Your task to perform on an android device: Open the calendar and show me this week's events? Image 0: 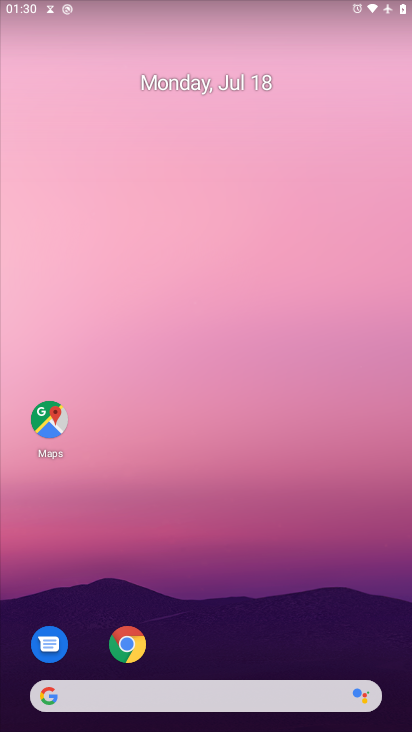
Step 0: press home button
Your task to perform on an android device: Open the calendar and show me this week's events? Image 1: 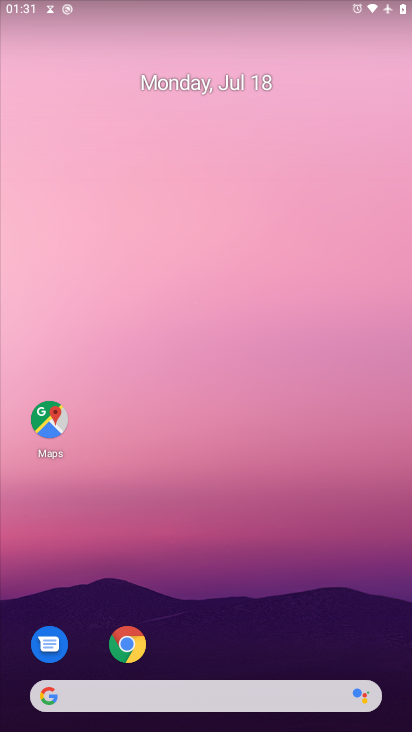
Step 1: drag from (211, 657) to (270, 7)
Your task to perform on an android device: Open the calendar and show me this week's events? Image 2: 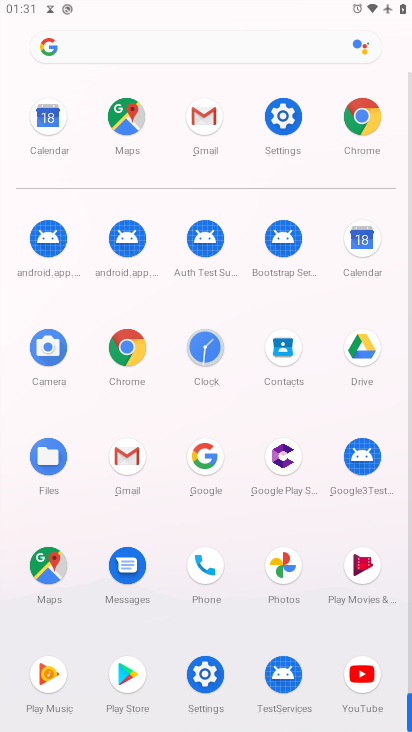
Step 2: click (367, 245)
Your task to perform on an android device: Open the calendar and show me this week's events? Image 3: 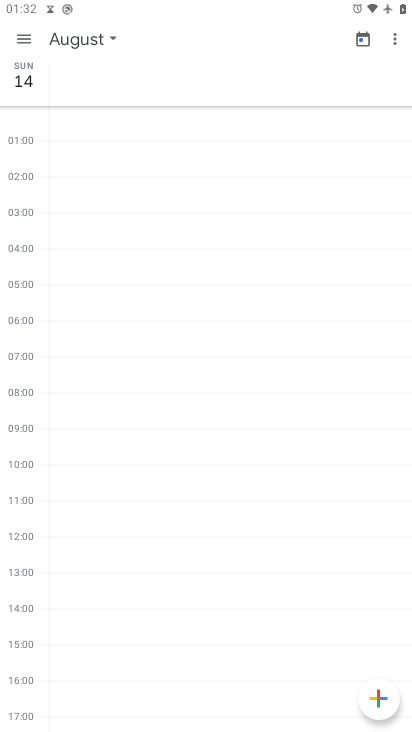
Step 3: click (20, 38)
Your task to perform on an android device: Open the calendar and show me this week's events? Image 4: 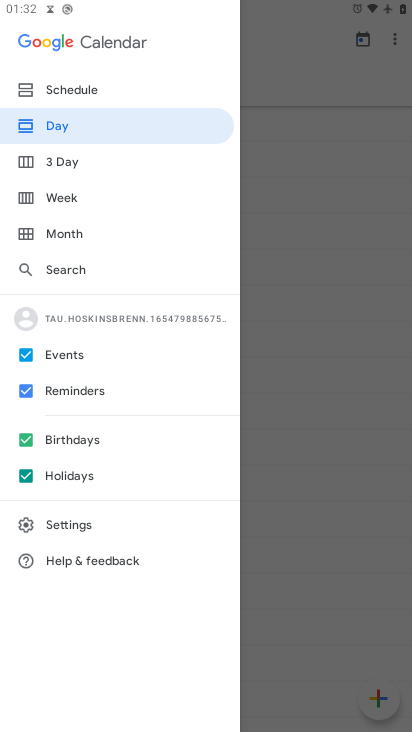
Step 4: click (63, 197)
Your task to perform on an android device: Open the calendar and show me this week's events? Image 5: 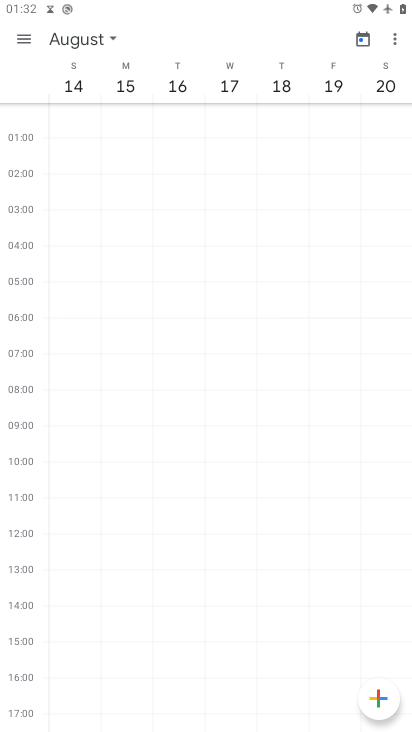
Step 5: task complete